Your task to perform on an android device: set default search engine in the chrome app Image 0: 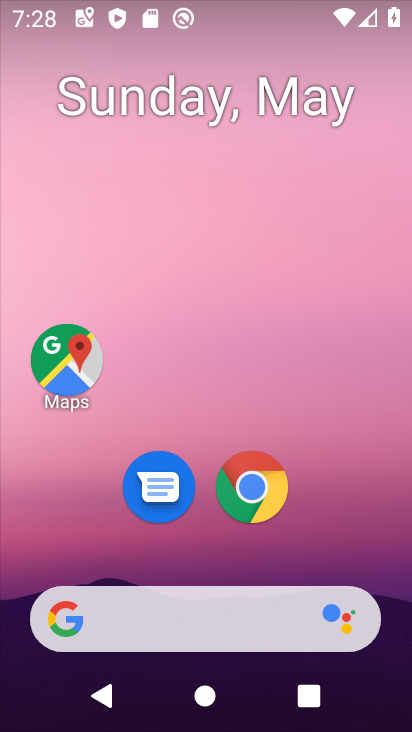
Step 0: drag from (383, 536) to (375, 264)
Your task to perform on an android device: set default search engine in the chrome app Image 1: 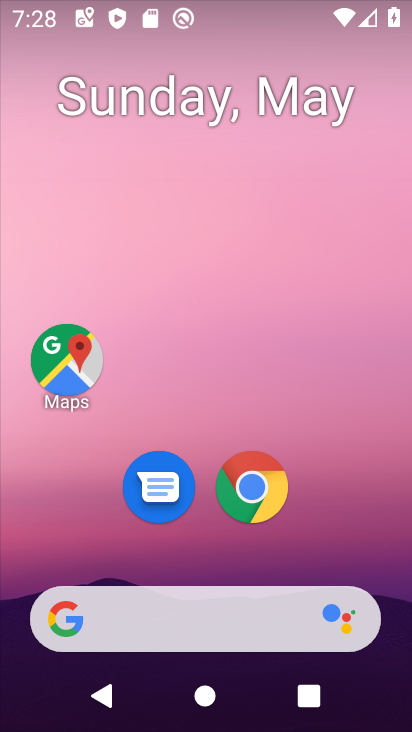
Step 1: drag from (374, 561) to (349, 207)
Your task to perform on an android device: set default search engine in the chrome app Image 2: 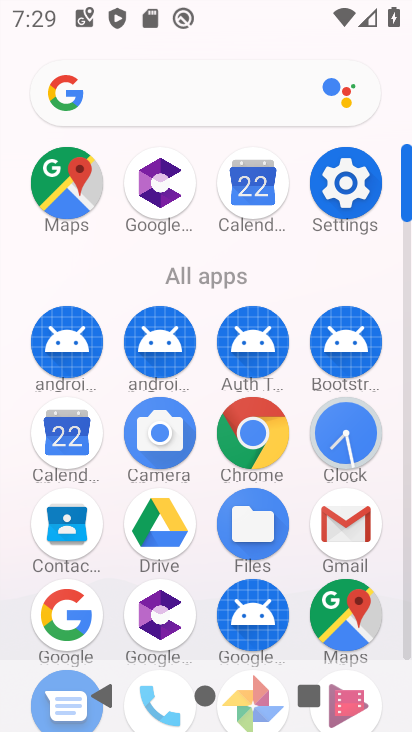
Step 2: drag from (389, 655) to (377, 483)
Your task to perform on an android device: set default search engine in the chrome app Image 3: 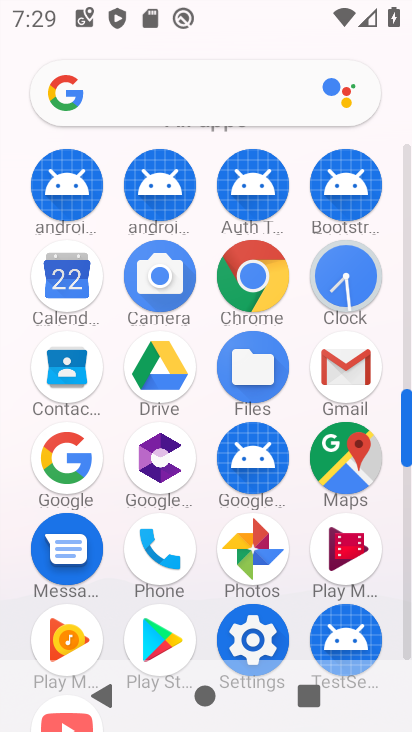
Step 3: click (263, 277)
Your task to perform on an android device: set default search engine in the chrome app Image 4: 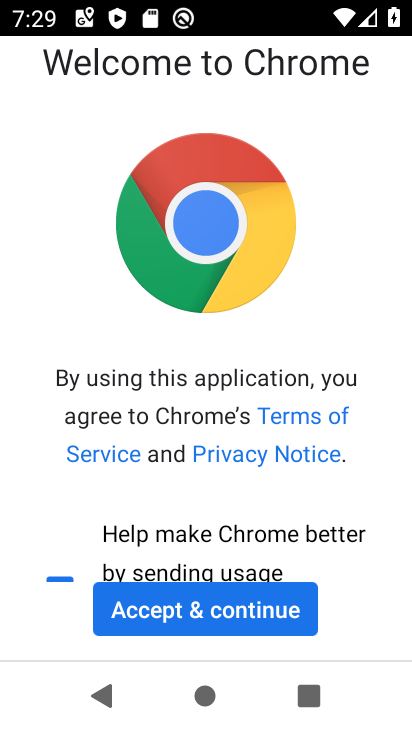
Step 4: click (303, 603)
Your task to perform on an android device: set default search engine in the chrome app Image 5: 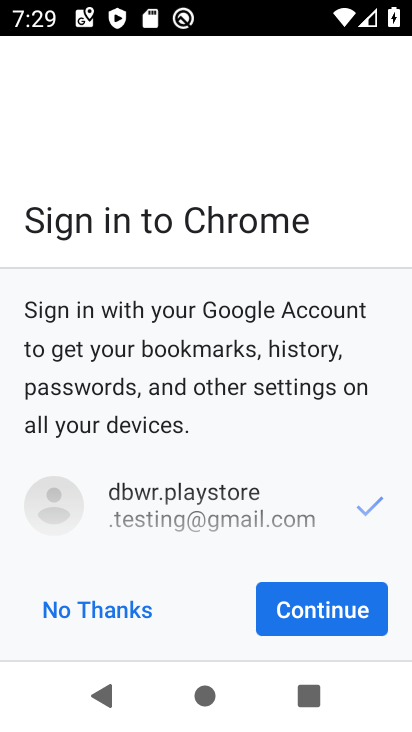
Step 5: click (303, 603)
Your task to perform on an android device: set default search engine in the chrome app Image 6: 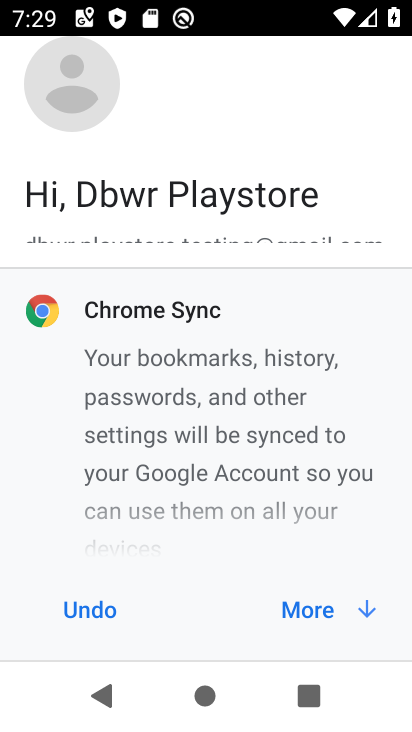
Step 6: click (303, 603)
Your task to perform on an android device: set default search engine in the chrome app Image 7: 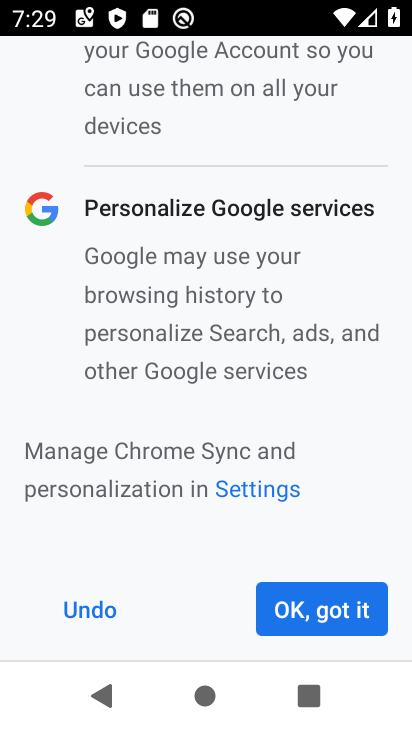
Step 7: click (303, 603)
Your task to perform on an android device: set default search engine in the chrome app Image 8: 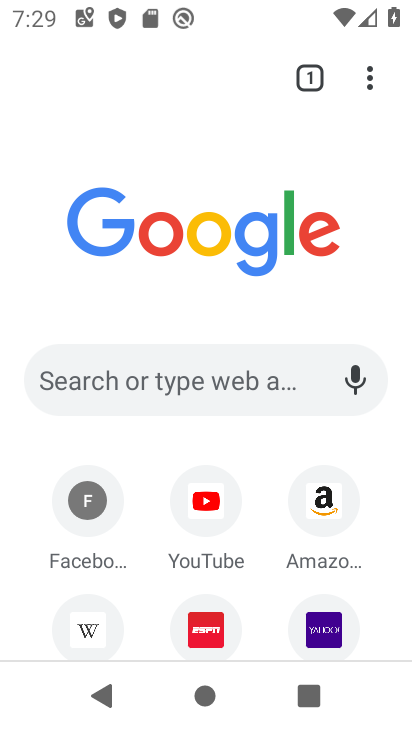
Step 8: click (369, 79)
Your task to perform on an android device: set default search engine in the chrome app Image 9: 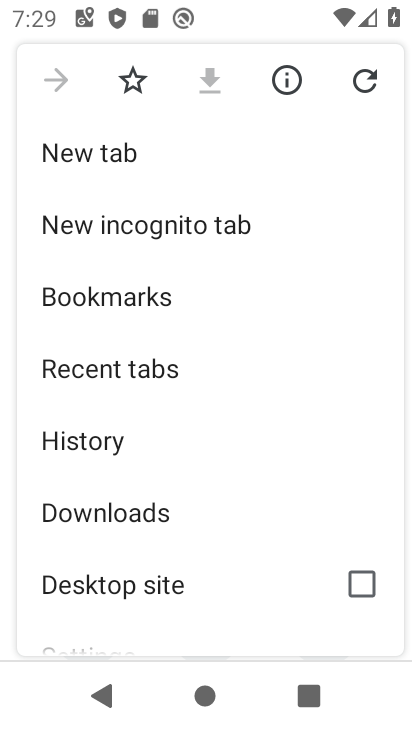
Step 9: drag from (294, 470) to (291, 395)
Your task to perform on an android device: set default search engine in the chrome app Image 10: 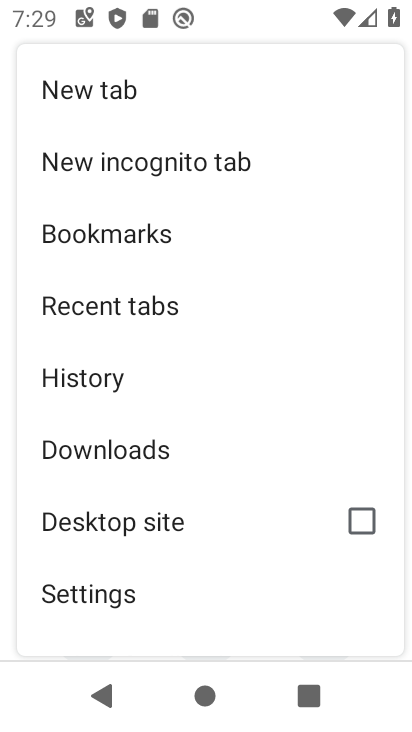
Step 10: drag from (270, 468) to (270, 388)
Your task to perform on an android device: set default search engine in the chrome app Image 11: 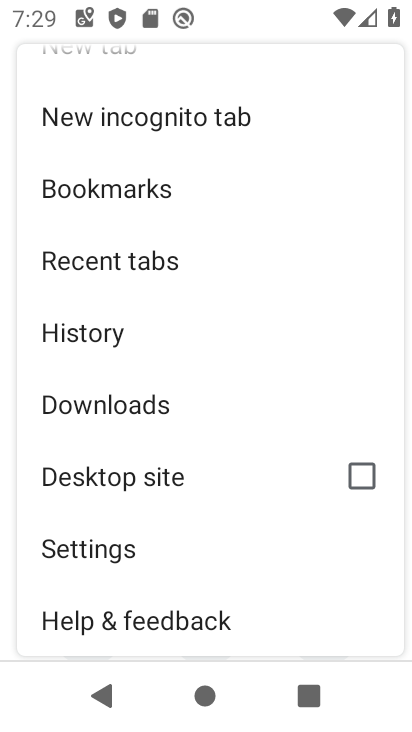
Step 11: click (150, 568)
Your task to perform on an android device: set default search engine in the chrome app Image 12: 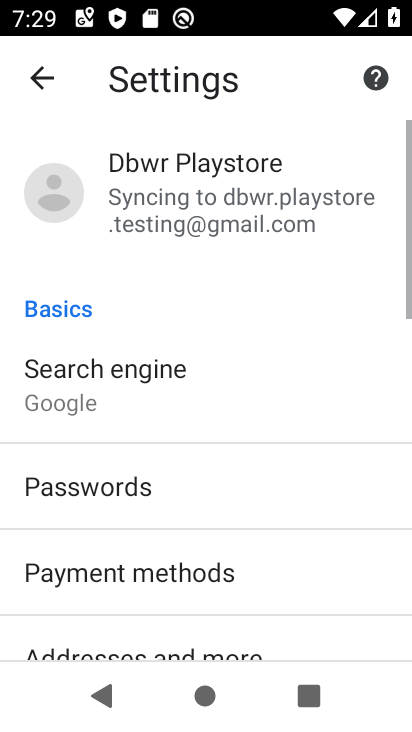
Step 12: drag from (292, 573) to (302, 496)
Your task to perform on an android device: set default search engine in the chrome app Image 13: 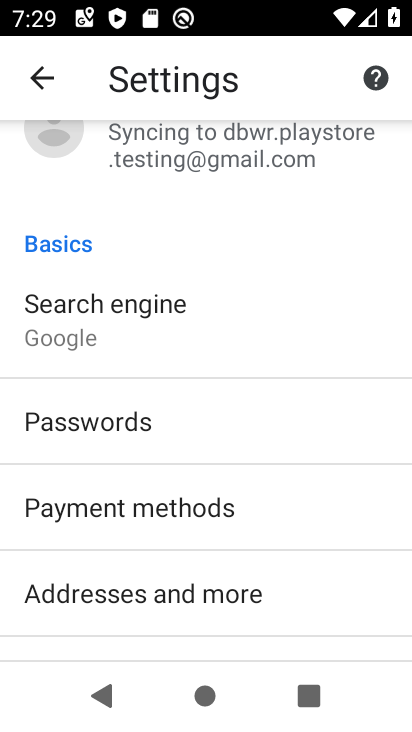
Step 13: drag from (311, 559) to (314, 513)
Your task to perform on an android device: set default search engine in the chrome app Image 14: 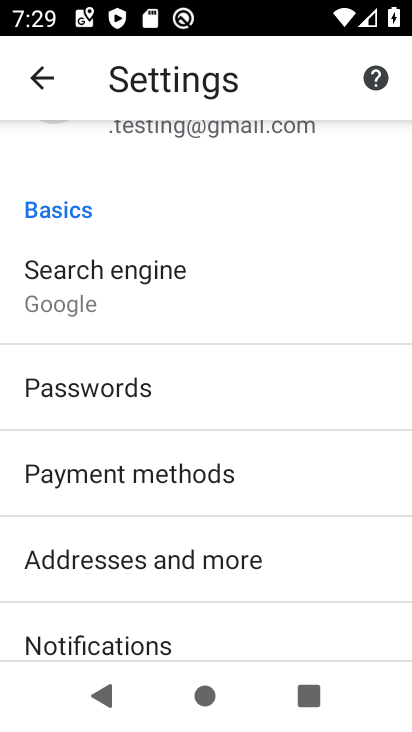
Step 14: drag from (327, 583) to (323, 509)
Your task to perform on an android device: set default search engine in the chrome app Image 15: 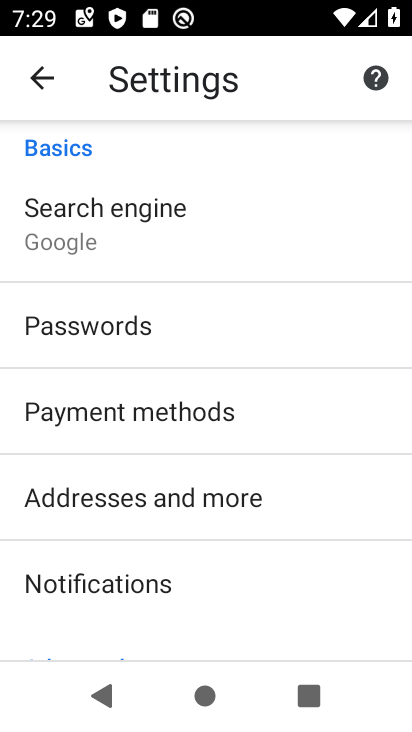
Step 15: drag from (322, 583) to (322, 518)
Your task to perform on an android device: set default search engine in the chrome app Image 16: 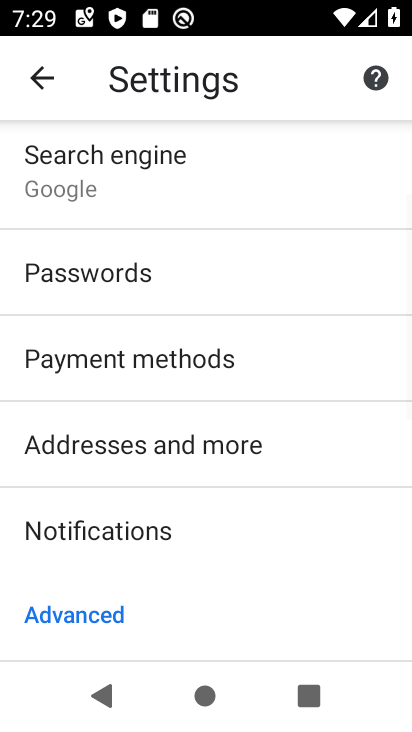
Step 16: drag from (321, 599) to (321, 551)
Your task to perform on an android device: set default search engine in the chrome app Image 17: 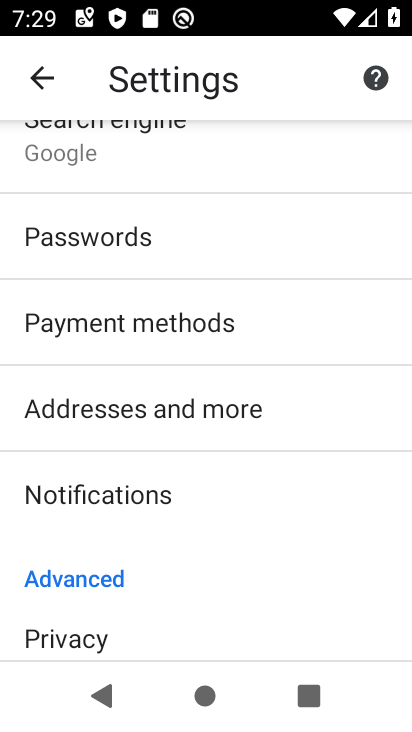
Step 17: drag from (331, 604) to (330, 532)
Your task to perform on an android device: set default search engine in the chrome app Image 18: 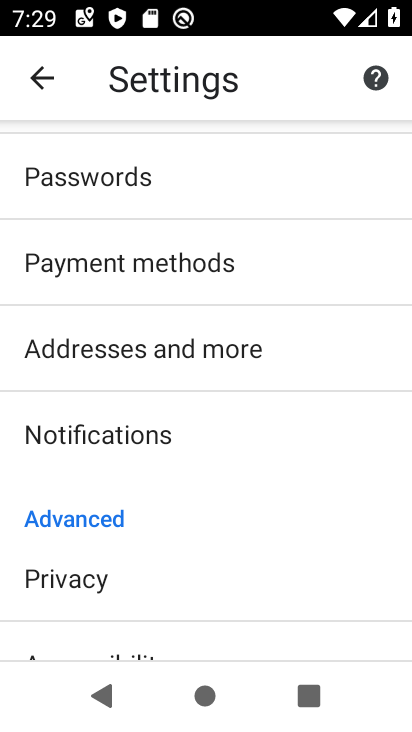
Step 18: drag from (331, 570) to (331, 514)
Your task to perform on an android device: set default search engine in the chrome app Image 19: 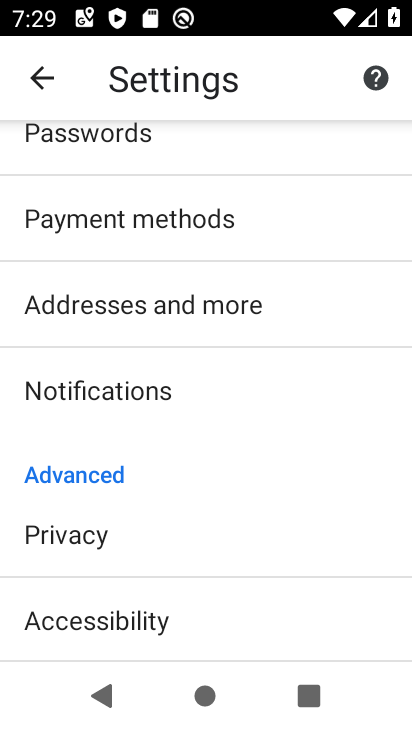
Step 19: drag from (327, 582) to (326, 522)
Your task to perform on an android device: set default search engine in the chrome app Image 20: 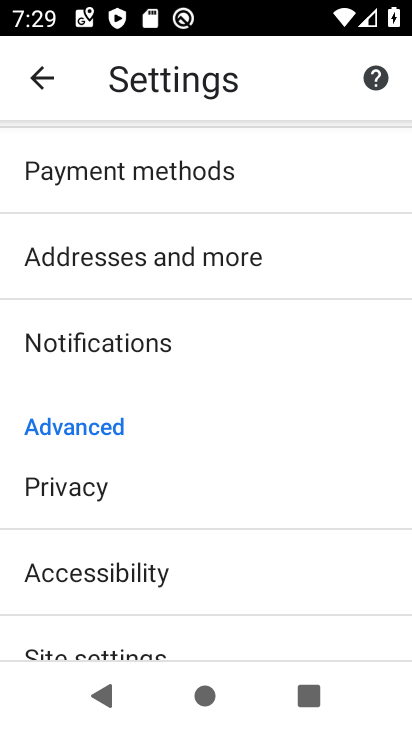
Step 20: drag from (319, 580) to (319, 525)
Your task to perform on an android device: set default search engine in the chrome app Image 21: 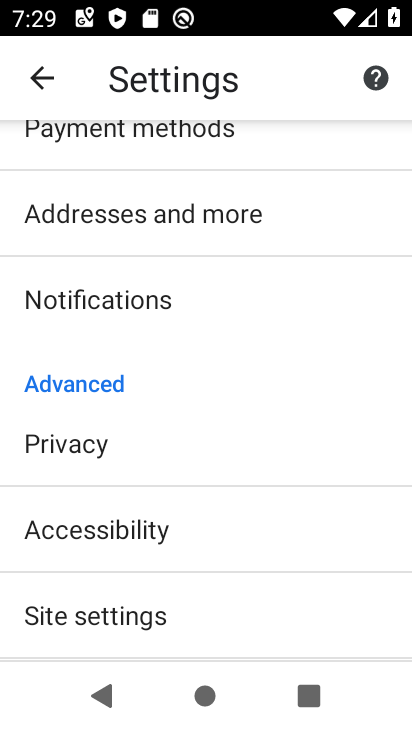
Step 21: drag from (318, 570) to (318, 517)
Your task to perform on an android device: set default search engine in the chrome app Image 22: 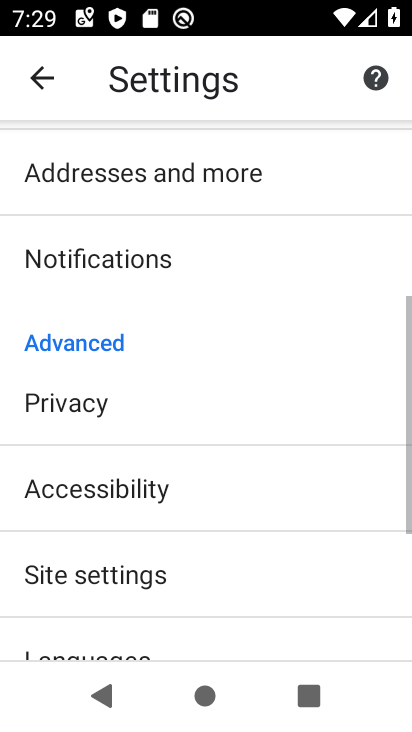
Step 22: drag from (311, 579) to (313, 516)
Your task to perform on an android device: set default search engine in the chrome app Image 23: 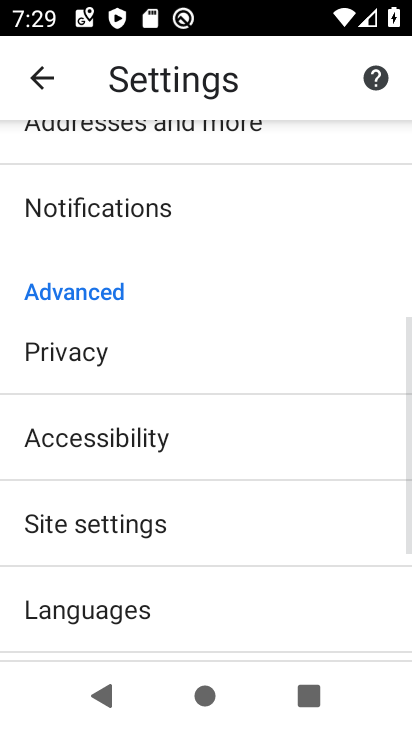
Step 23: drag from (309, 580) to (309, 502)
Your task to perform on an android device: set default search engine in the chrome app Image 24: 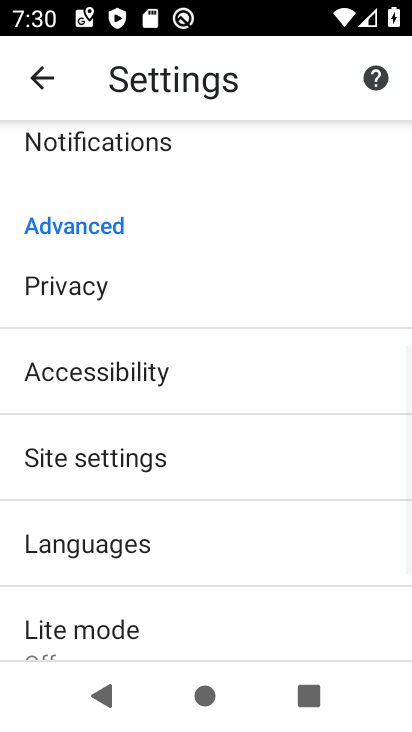
Step 24: drag from (308, 584) to (313, 501)
Your task to perform on an android device: set default search engine in the chrome app Image 25: 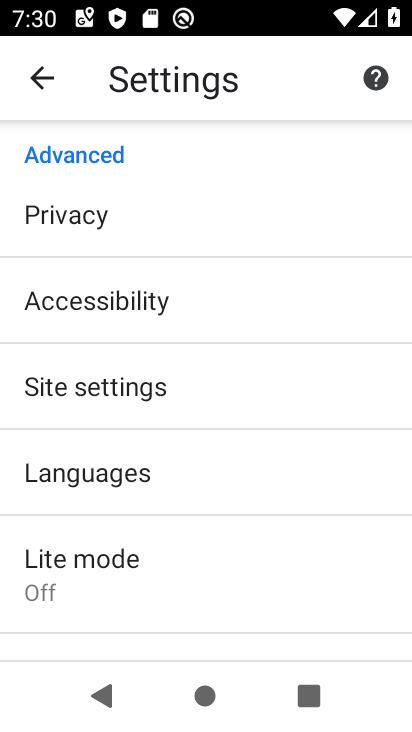
Step 25: drag from (310, 597) to (319, 392)
Your task to perform on an android device: set default search engine in the chrome app Image 26: 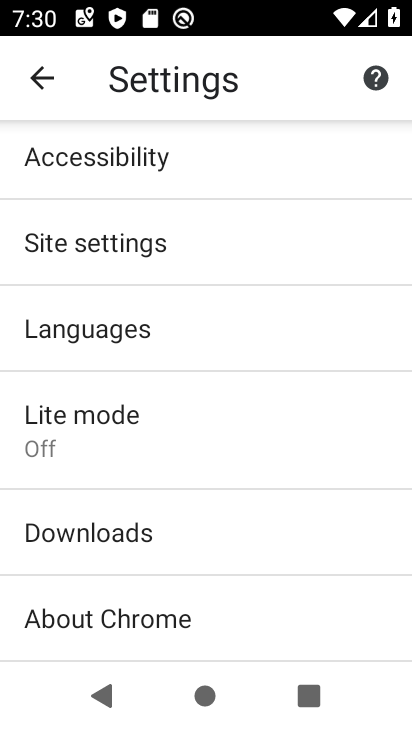
Step 26: drag from (326, 259) to (328, 414)
Your task to perform on an android device: set default search engine in the chrome app Image 27: 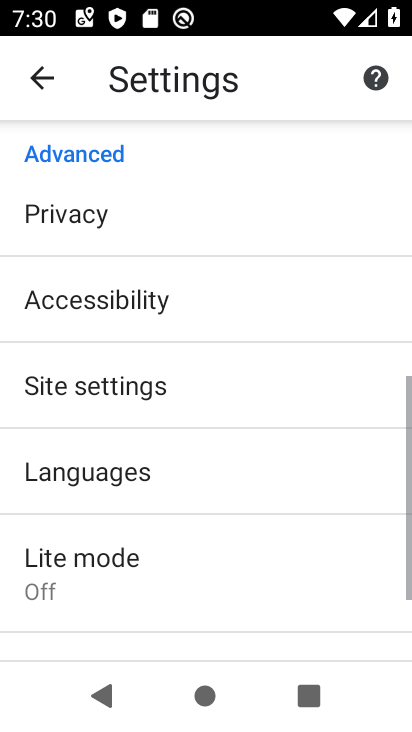
Step 27: drag from (320, 287) to (318, 407)
Your task to perform on an android device: set default search engine in the chrome app Image 28: 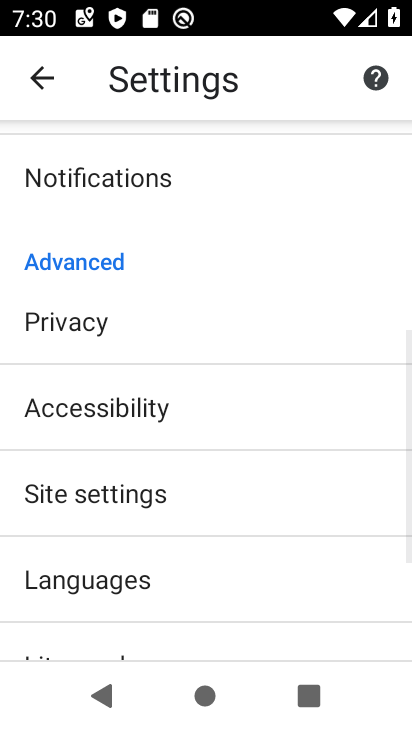
Step 28: drag from (311, 273) to (315, 406)
Your task to perform on an android device: set default search engine in the chrome app Image 29: 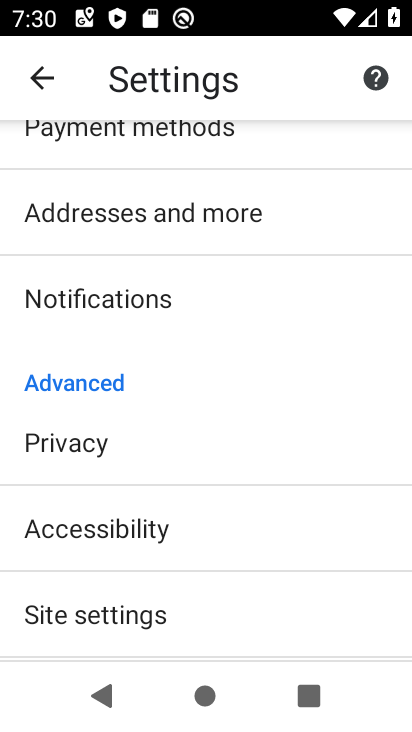
Step 29: drag from (317, 284) to (317, 416)
Your task to perform on an android device: set default search engine in the chrome app Image 30: 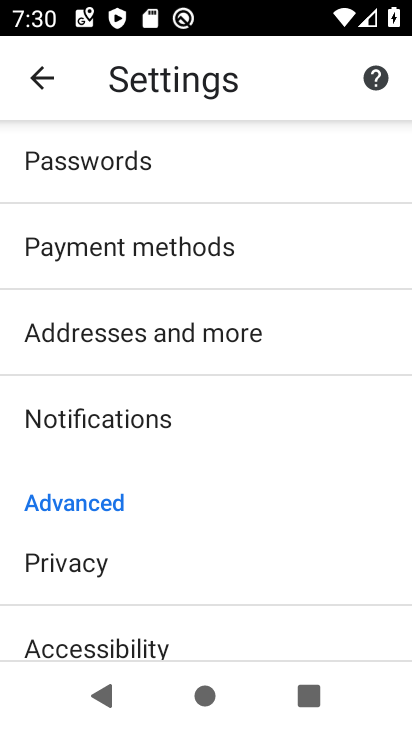
Step 30: drag from (311, 302) to (320, 379)
Your task to perform on an android device: set default search engine in the chrome app Image 31: 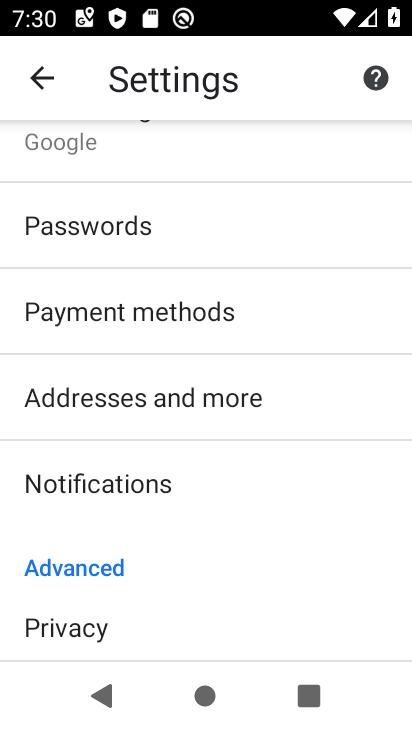
Step 31: drag from (322, 201) to (321, 329)
Your task to perform on an android device: set default search engine in the chrome app Image 32: 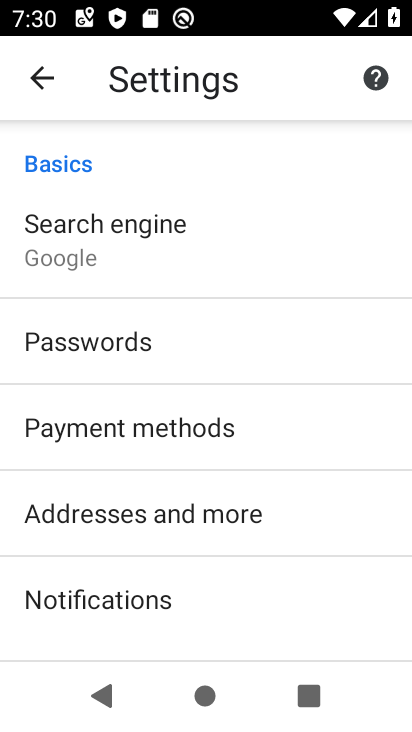
Step 32: click (206, 255)
Your task to perform on an android device: set default search engine in the chrome app Image 33: 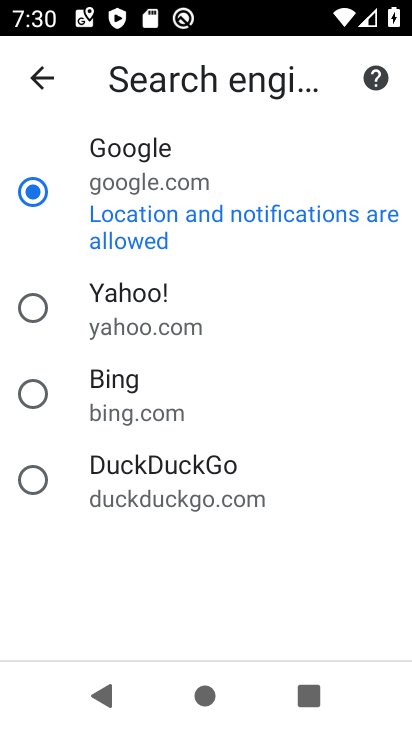
Step 33: click (140, 380)
Your task to perform on an android device: set default search engine in the chrome app Image 34: 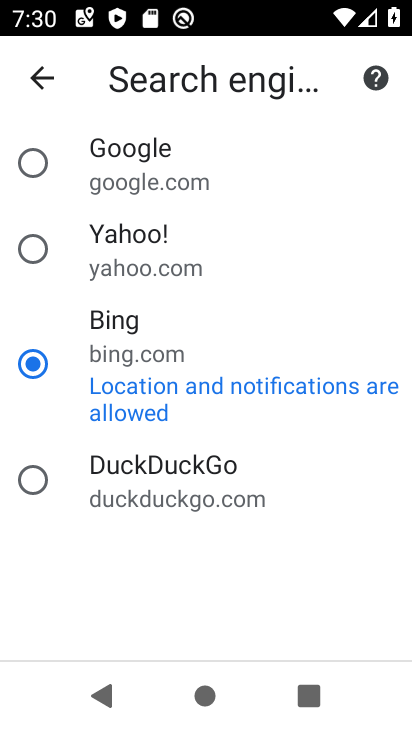
Step 34: task complete